Your task to perform on an android device: manage bookmarks in the chrome app Image 0: 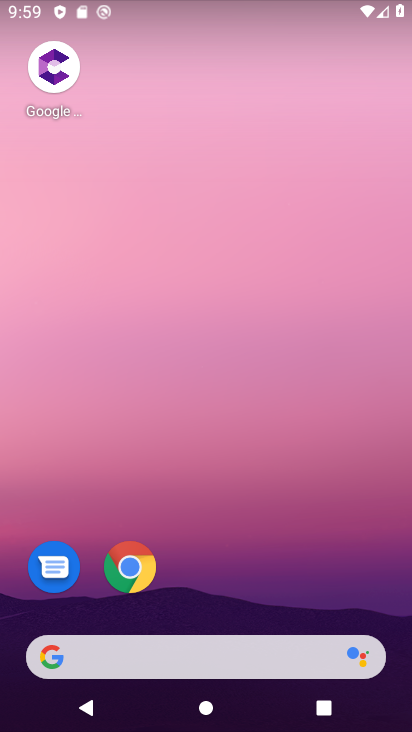
Step 0: click (120, 580)
Your task to perform on an android device: manage bookmarks in the chrome app Image 1: 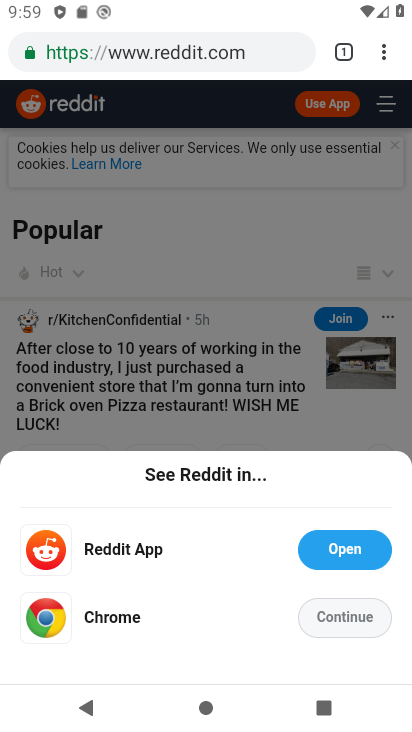
Step 1: task complete